Your task to perform on an android device: Check the news Image 0: 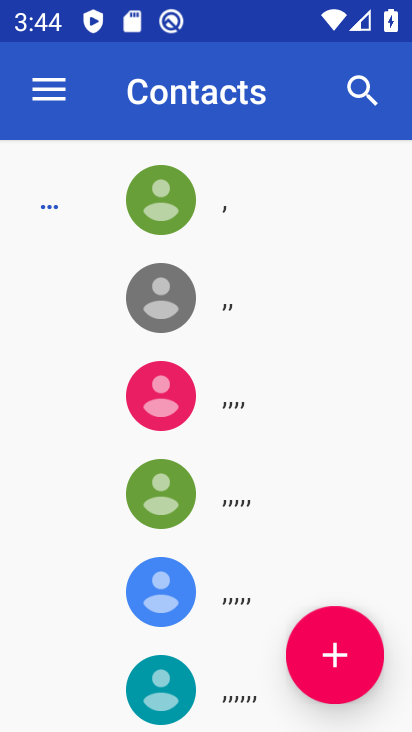
Step 0: press home button
Your task to perform on an android device: Check the news Image 1: 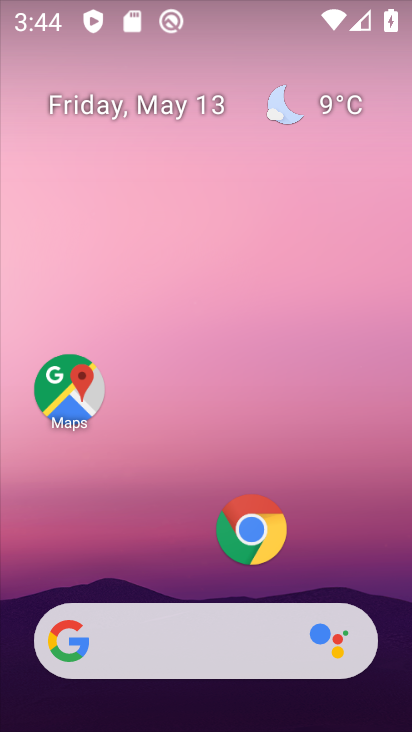
Step 1: task complete